Your task to perform on an android device: find photos in the google photos app Image 0: 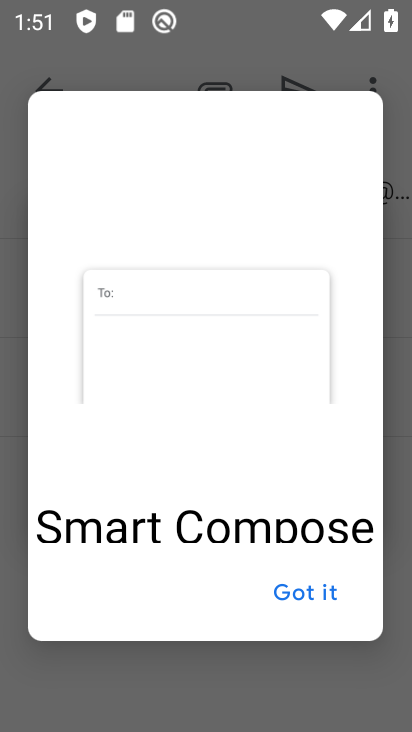
Step 0: press home button
Your task to perform on an android device: find photos in the google photos app Image 1: 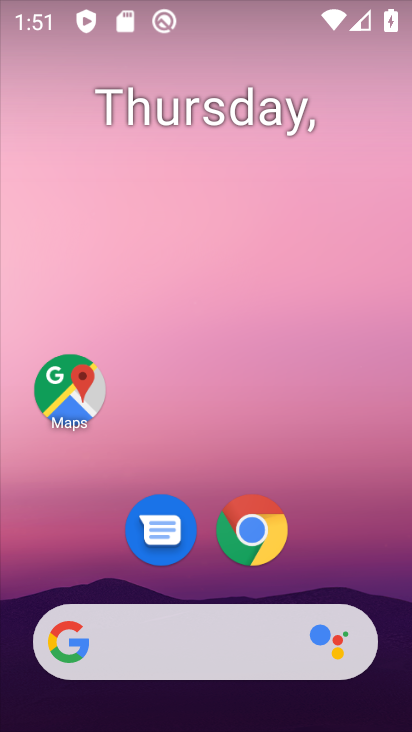
Step 1: drag from (184, 563) to (188, 81)
Your task to perform on an android device: find photos in the google photos app Image 2: 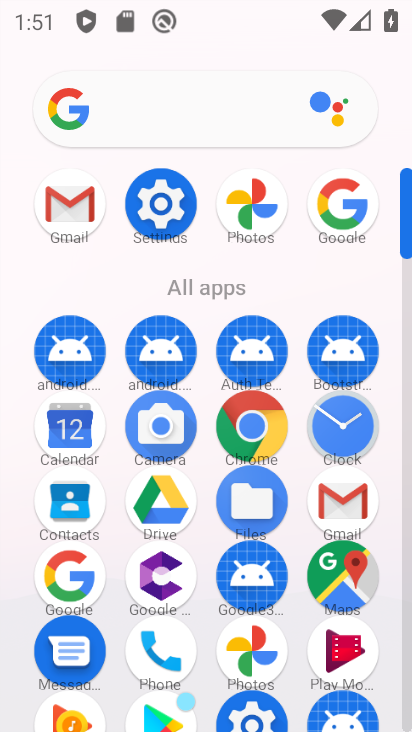
Step 2: click (240, 640)
Your task to perform on an android device: find photos in the google photos app Image 3: 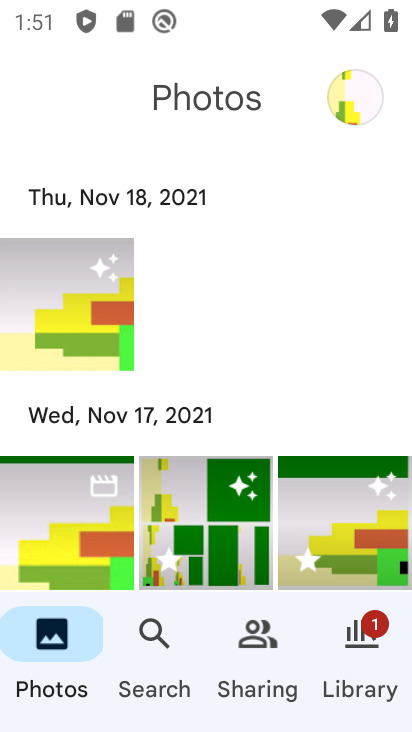
Step 3: click (153, 649)
Your task to perform on an android device: find photos in the google photos app Image 4: 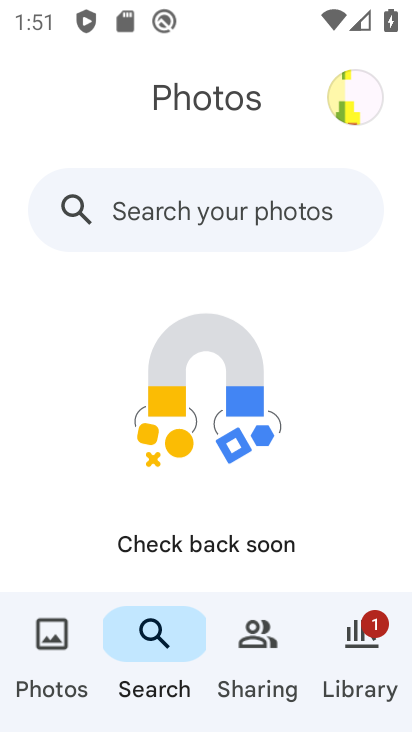
Step 4: task complete